Your task to perform on an android device: turn off notifications in google photos Image 0: 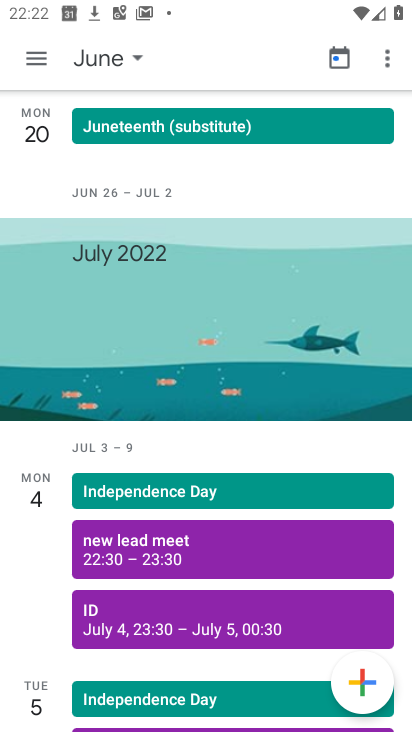
Step 0: press home button
Your task to perform on an android device: turn off notifications in google photos Image 1: 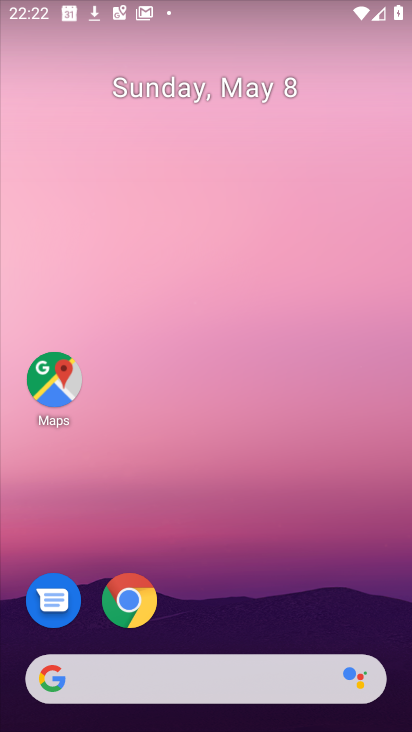
Step 1: drag from (274, 702) to (279, 236)
Your task to perform on an android device: turn off notifications in google photos Image 2: 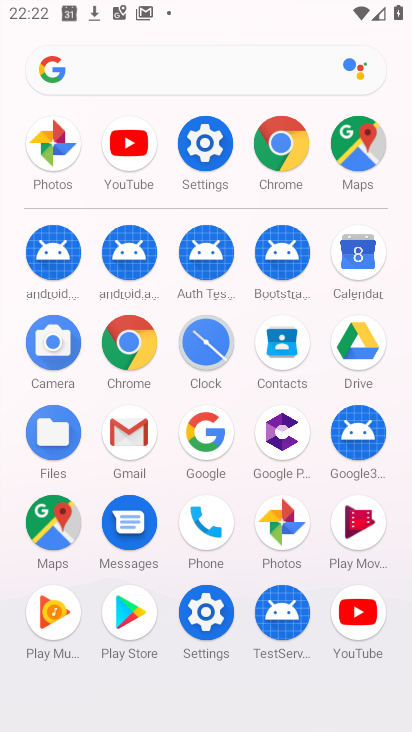
Step 2: click (274, 533)
Your task to perform on an android device: turn off notifications in google photos Image 3: 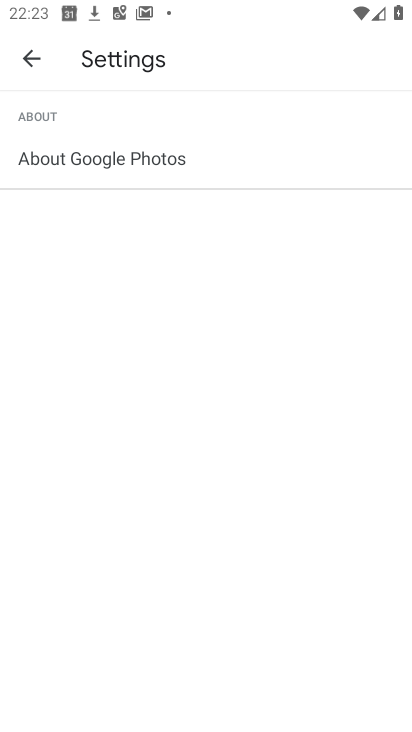
Step 3: click (20, 70)
Your task to perform on an android device: turn off notifications in google photos Image 4: 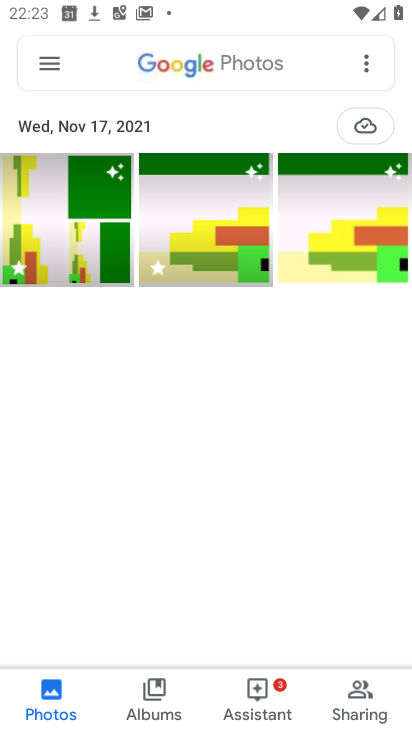
Step 4: click (51, 68)
Your task to perform on an android device: turn off notifications in google photos Image 5: 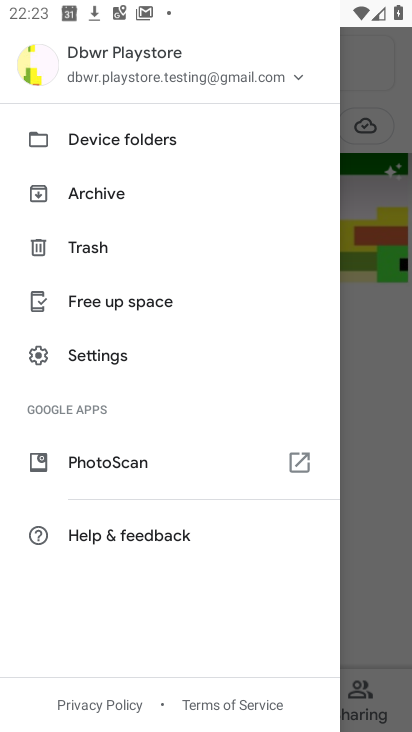
Step 5: click (109, 364)
Your task to perform on an android device: turn off notifications in google photos Image 6: 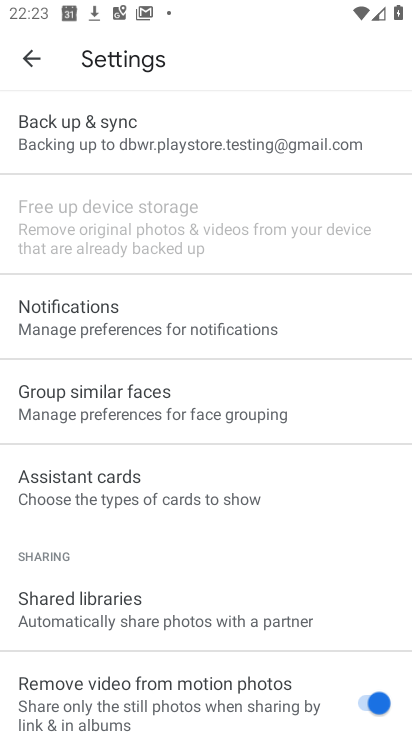
Step 6: click (113, 316)
Your task to perform on an android device: turn off notifications in google photos Image 7: 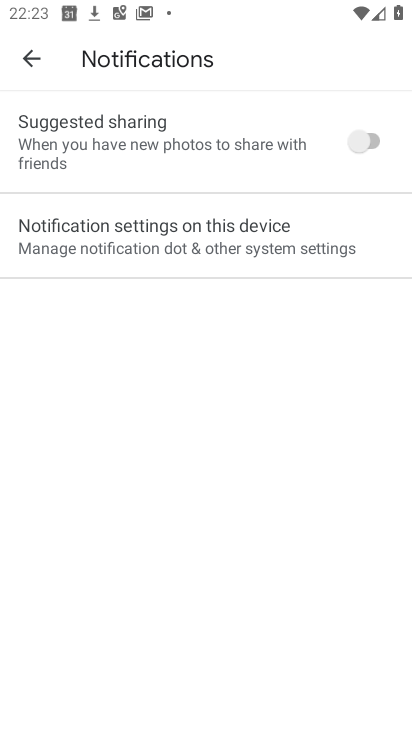
Step 7: click (145, 239)
Your task to perform on an android device: turn off notifications in google photos Image 8: 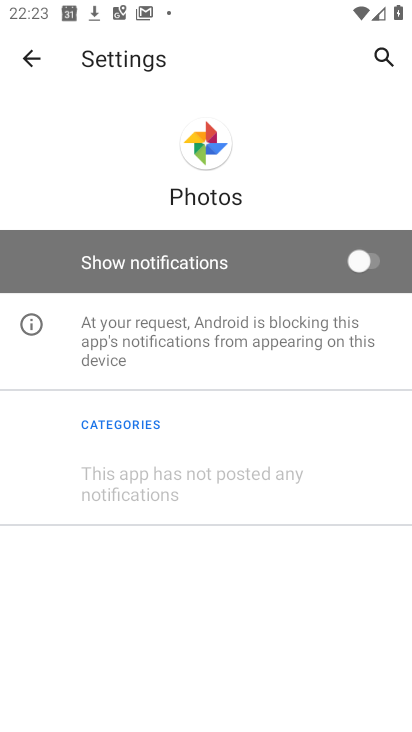
Step 8: click (366, 277)
Your task to perform on an android device: turn off notifications in google photos Image 9: 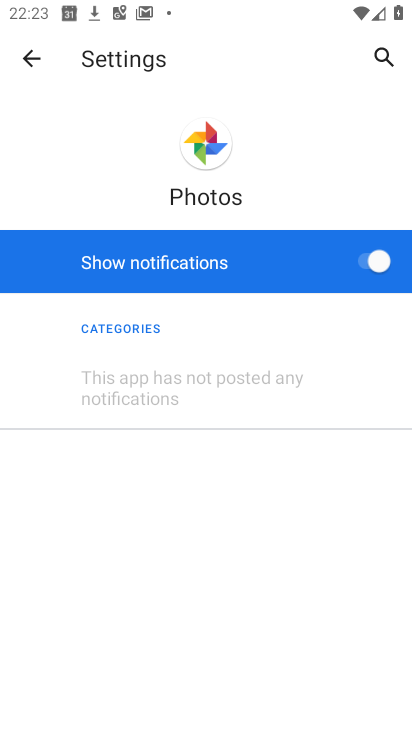
Step 9: click (362, 261)
Your task to perform on an android device: turn off notifications in google photos Image 10: 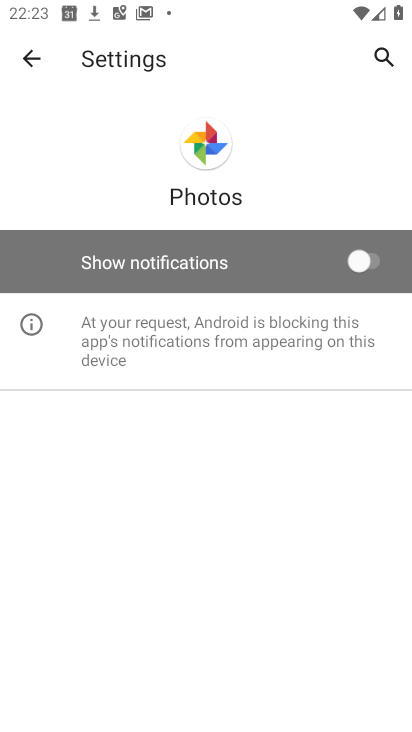
Step 10: task complete